Your task to perform on an android device: find which apps use the phone's location Image 0: 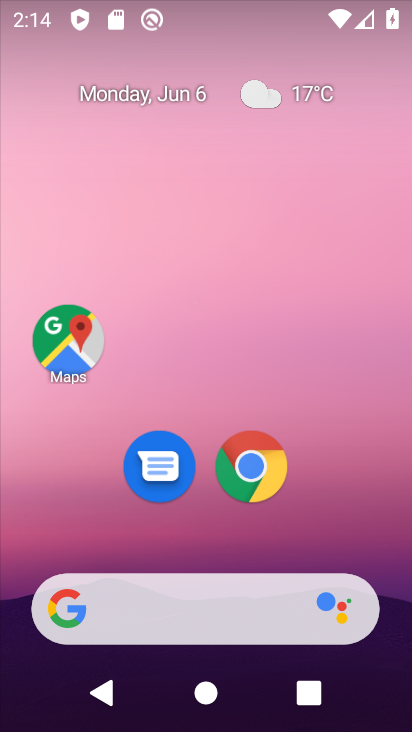
Step 0: drag from (377, 548) to (277, 104)
Your task to perform on an android device: find which apps use the phone's location Image 1: 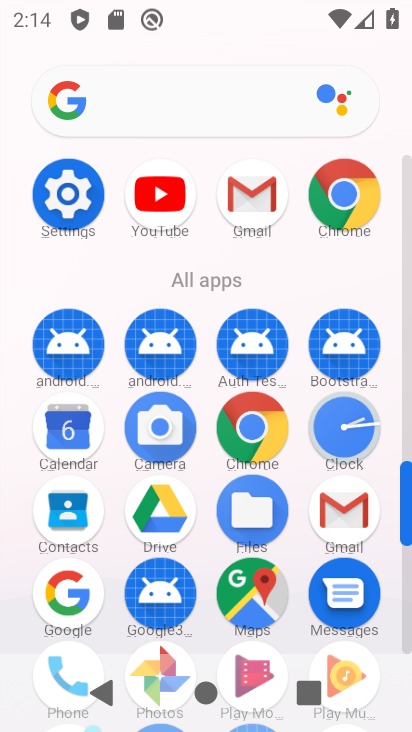
Step 1: click (75, 213)
Your task to perform on an android device: find which apps use the phone's location Image 2: 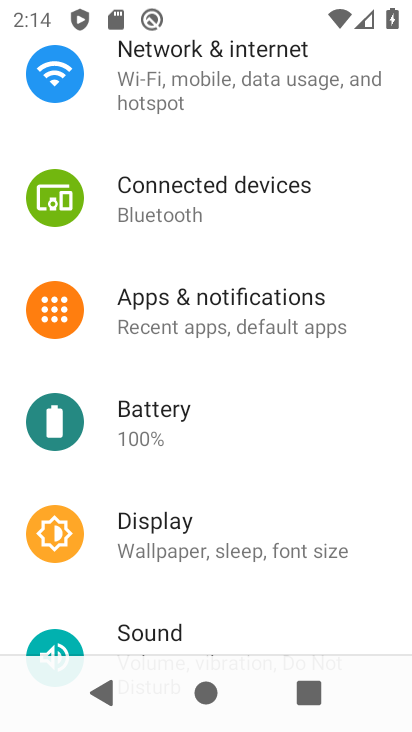
Step 2: click (243, 312)
Your task to perform on an android device: find which apps use the phone's location Image 3: 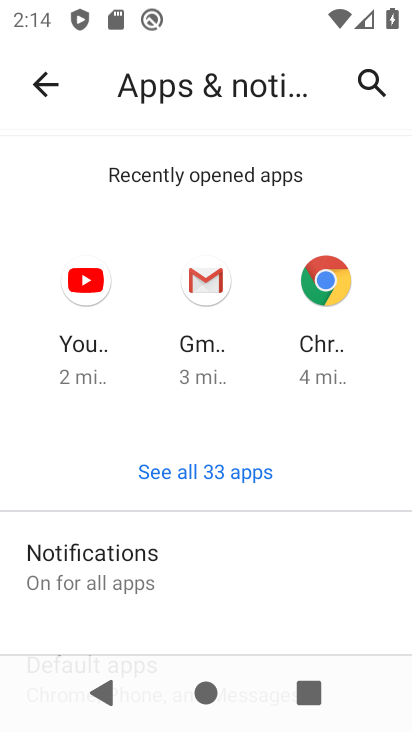
Step 3: drag from (221, 593) to (199, 257)
Your task to perform on an android device: find which apps use the phone's location Image 4: 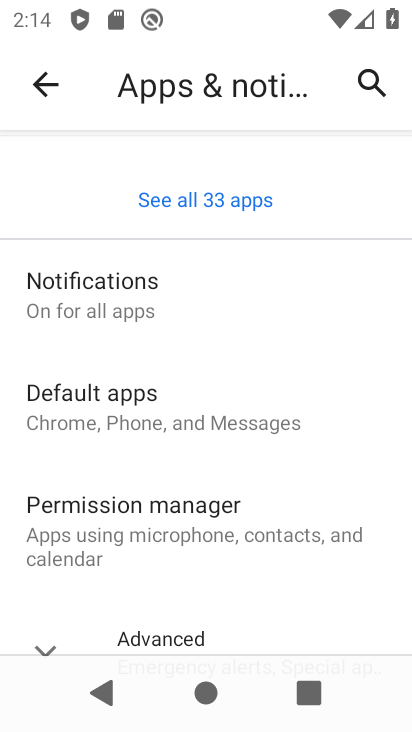
Step 4: click (201, 296)
Your task to perform on an android device: find which apps use the phone's location Image 5: 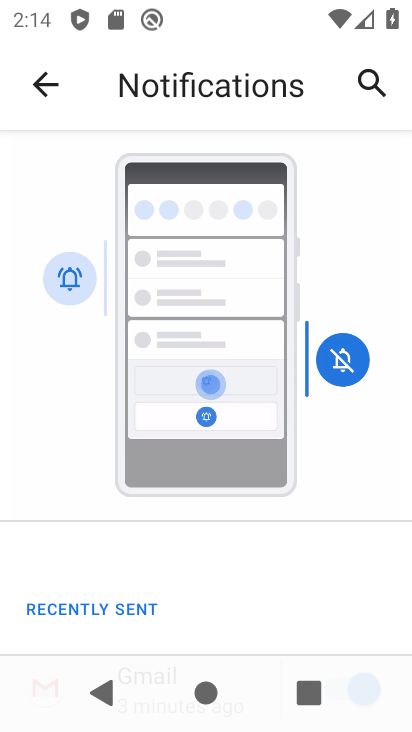
Step 5: click (25, 88)
Your task to perform on an android device: find which apps use the phone's location Image 6: 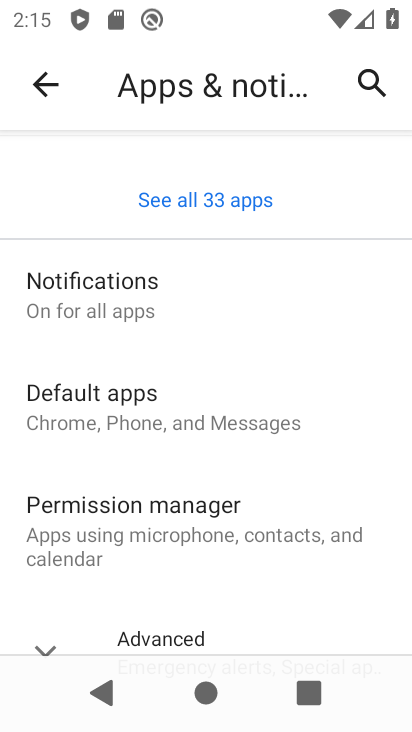
Step 6: click (41, 94)
Your task to perform on an android device: find which apps use the phone's location Image 7: 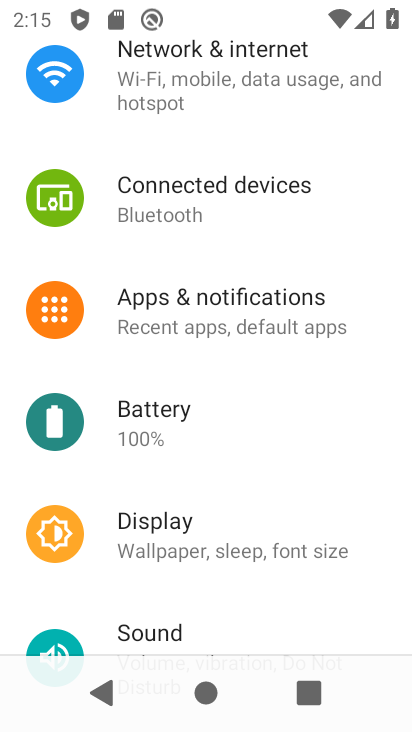
Step 7: drag from (262, 507) to (252, 135)
Your task to perform on an android device: find which apps use the phone's location Image 8: 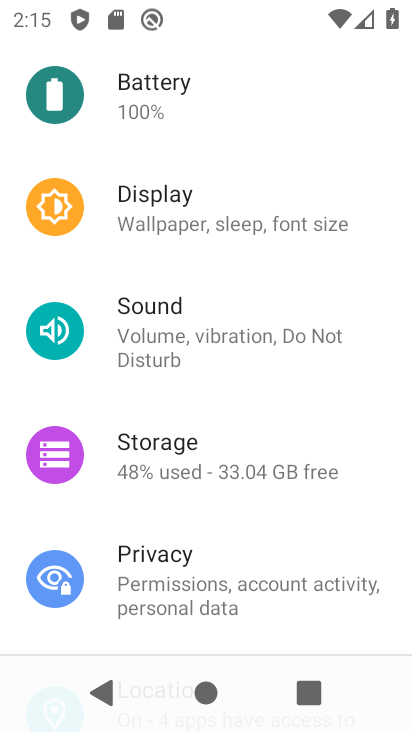
Step 8: drag from (276, 549) to (245, 239)
Your task to perform on an android device: find which apps use the phone's location Image 9: 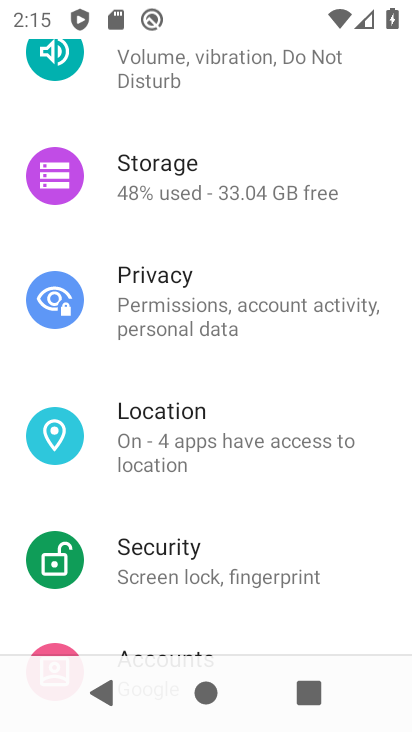
Step 9: click (244, 421)
Your task to perform on an android device: find which apps use the phone's location Image 10: 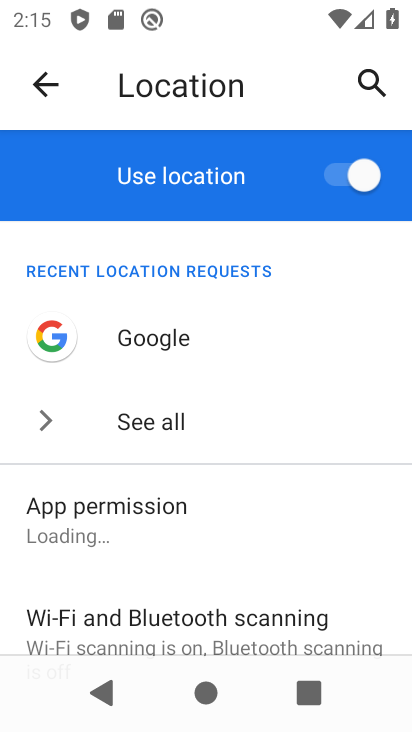
Step 10: click (254, 511)
Your task to perform on an android device: find which apps use the phone's location Image 11: 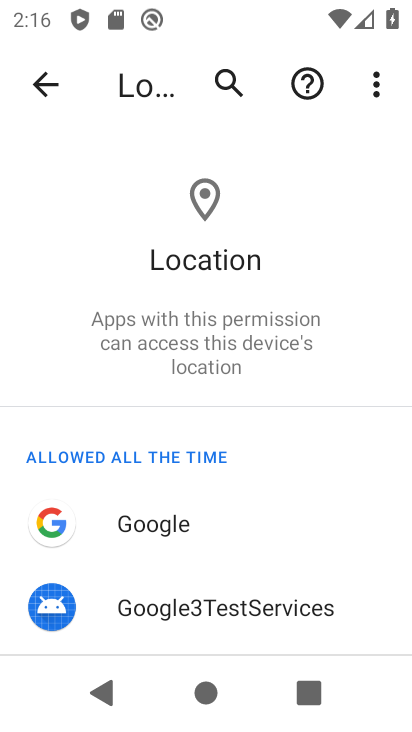
Step 11: task complete